Your task to perform on an android device: change notification settings in the gmail app Image 0: 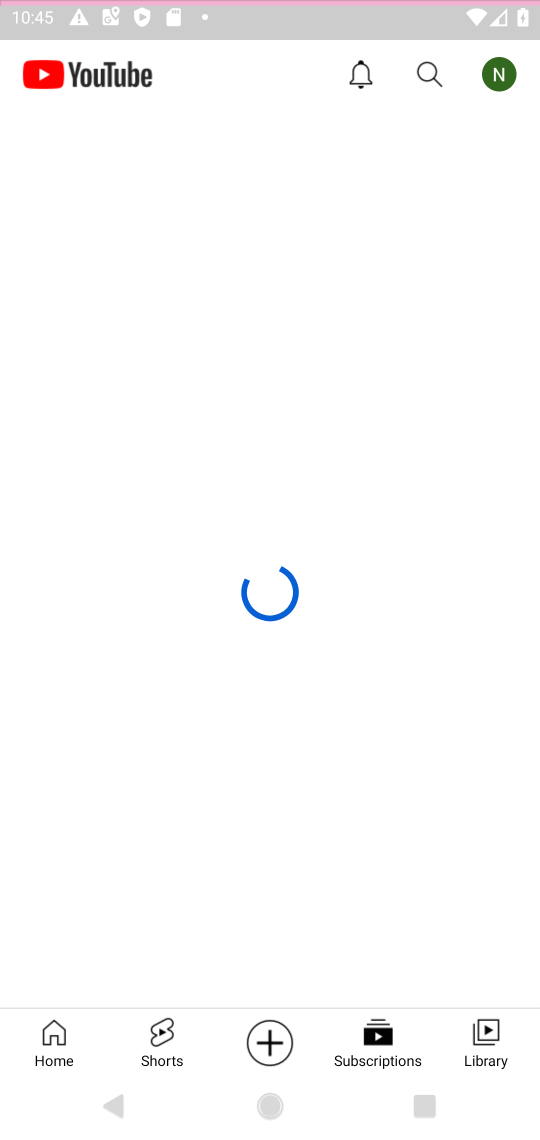
Step 0: press home button
Your task to perform on an android device: change notification settings in the gmail app Image 1: 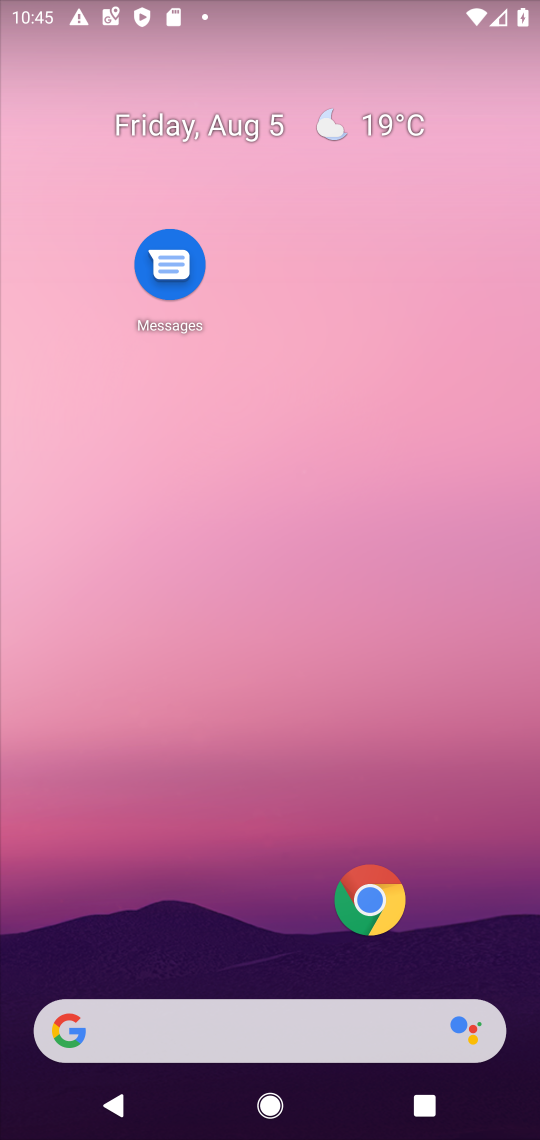
Step 1: drag from (161, 1007) to (254, 408)
Your task to perform on an android device: change notification settings in the gmail app Image 2: 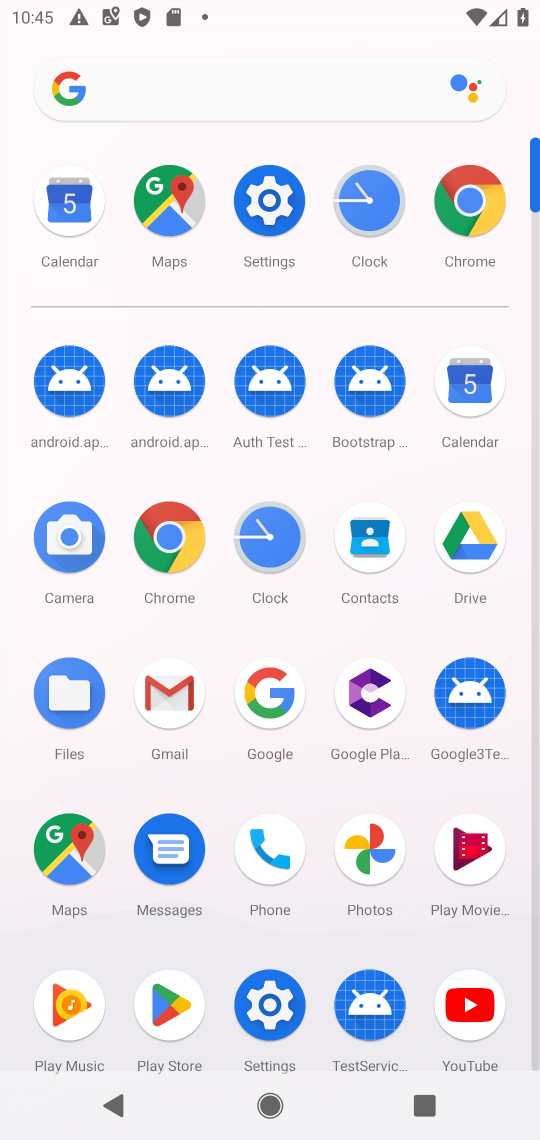
Step 2: click (177, 725)
Your task to perform on an android device: change notification settings in the gmail app Image 3: 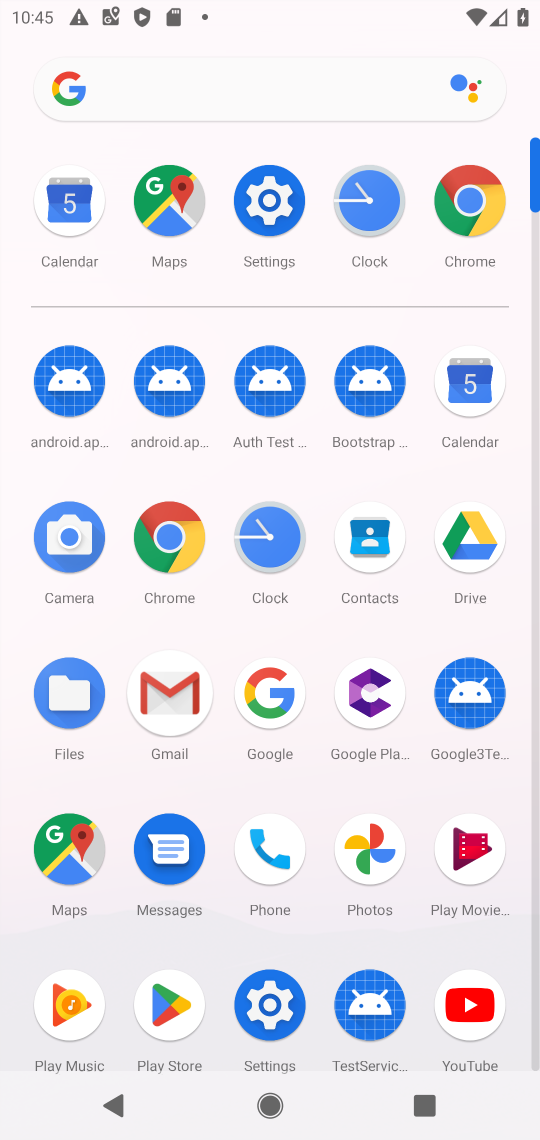
Step 3: click (177, 725)
Your task to perform on an android device: change notification settings in the gmail app Image 4: 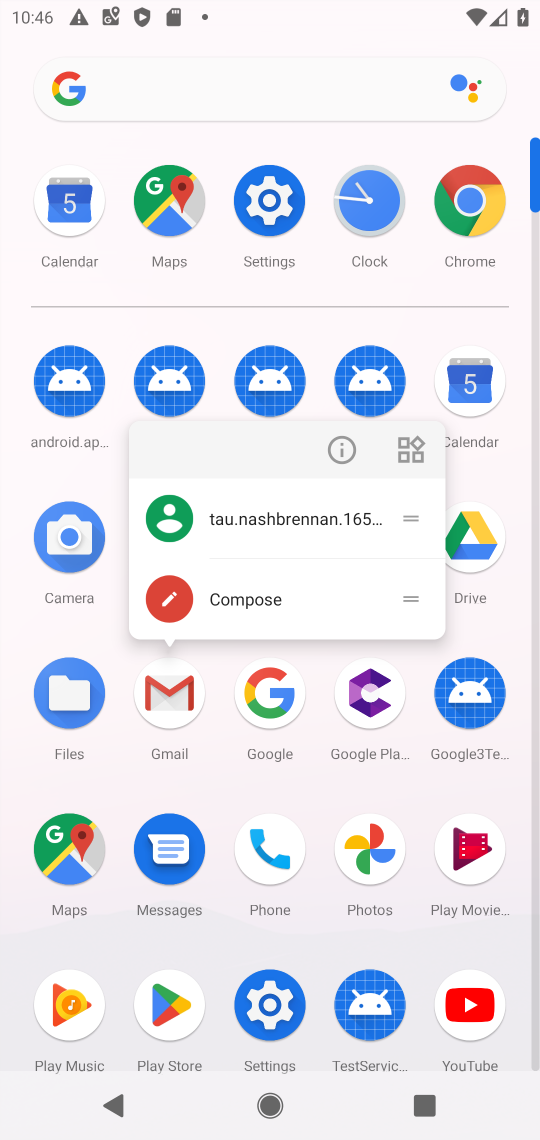
Step 4: click (318, 445)
Your task to perform on an android device: change notification settings in the gmail app Image 5: 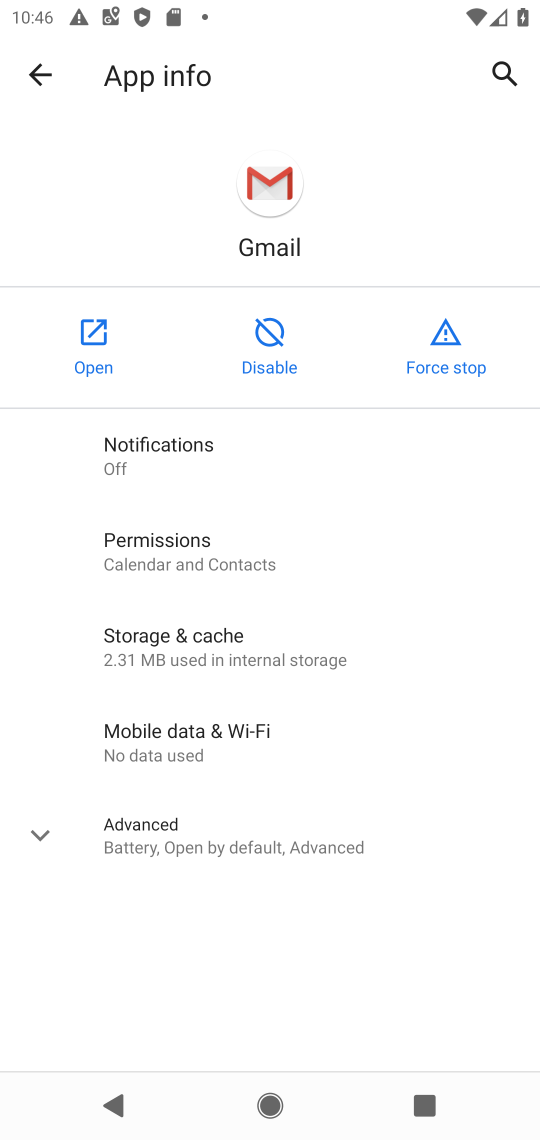
Step 5: click (149, 467)
Your task to perform on an android device: change notification settings in the gmail app Image 6: 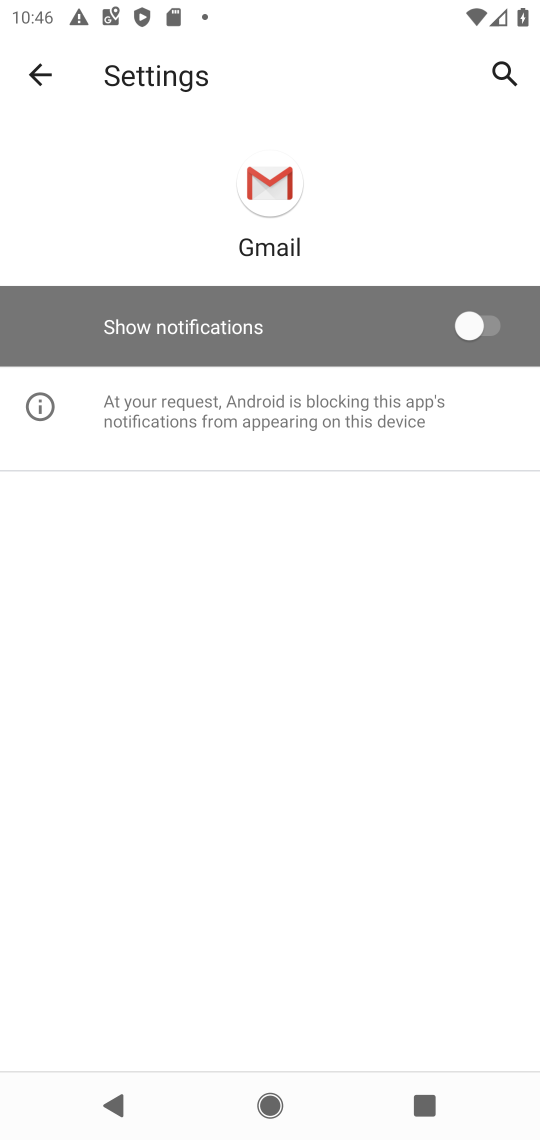
Step 6: click (209, 344)
Your task to perform on an android device: change notification settings in the gmail app Image 7: 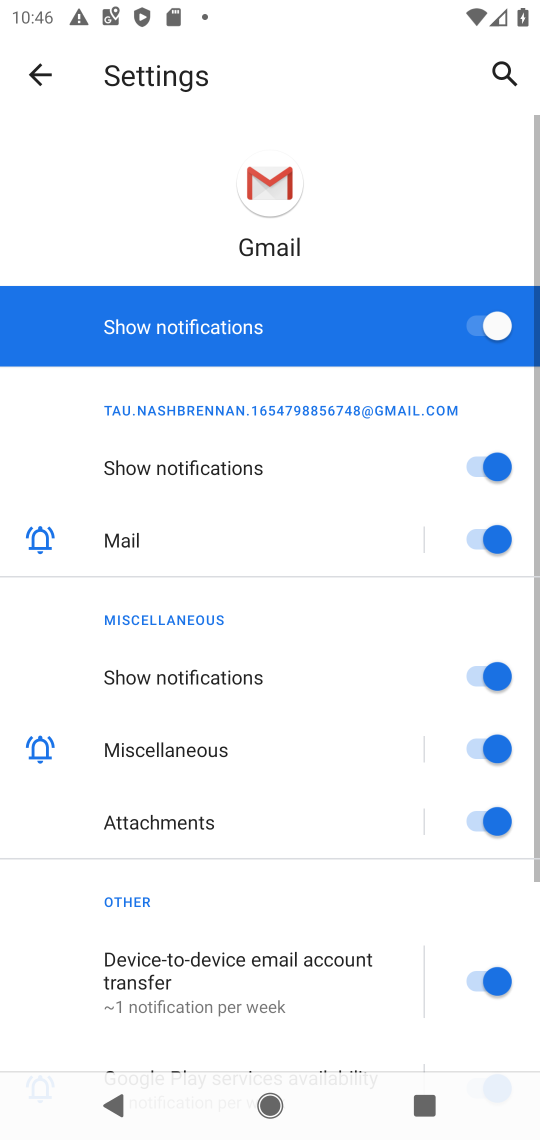
Step 7: task complete